Your task to perform on an android device: change keyboard looks Image 0: 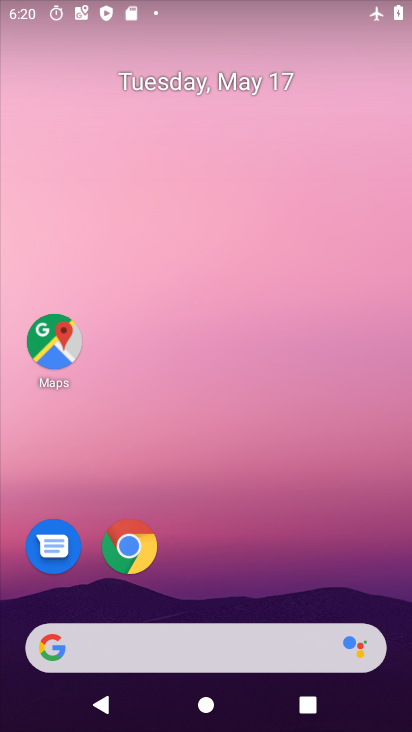
Step 0: drag from (188, 486) to (189, 216)
Your task to perform on an android device: change keyboard looks Image 1: 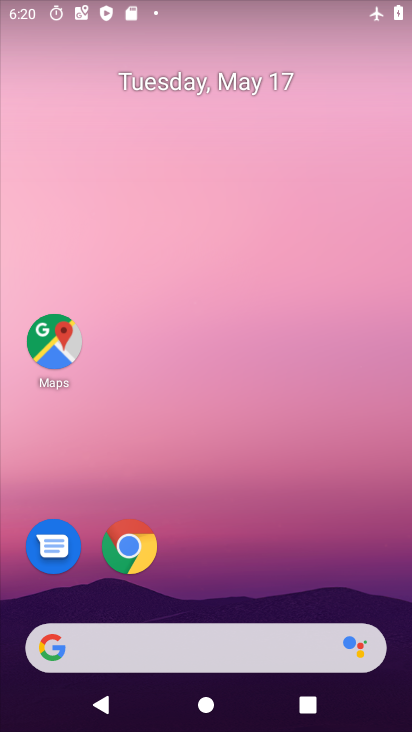
Step 1: drag from (209, 492) to (270, 106)
Your task to perform on an android device: change keyboard looks Image 2: 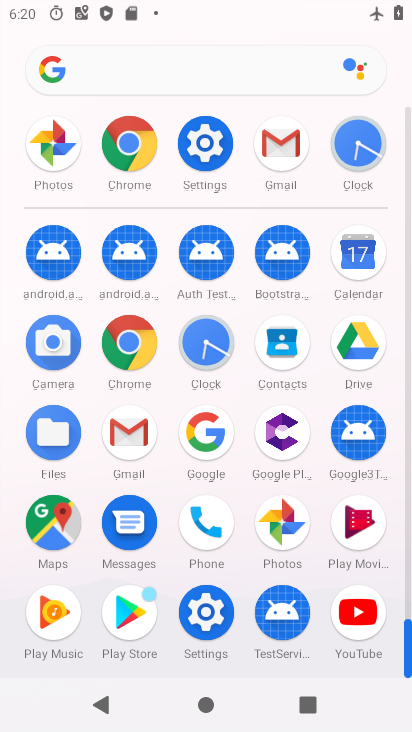
Step 2: click (214, 152)
Your task to perform on an android device: change keyboard looks Image 3: 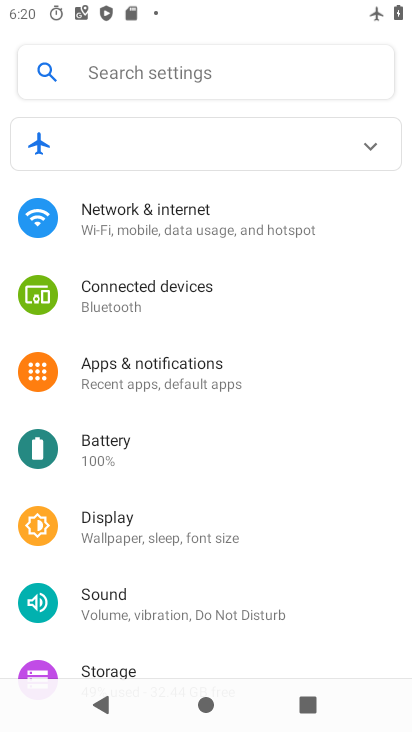
Step 3: drag from (181, 540) to (205, 158)
Your task to perform on an android device: change keyboard looks Image 4: 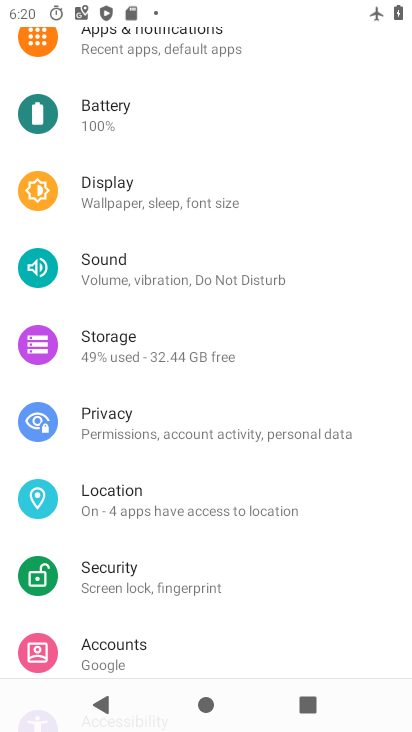
Step 4: drag from (154, 555) to (160, 297)
Your task to perform on an android device: change keyboard looks Image 5: 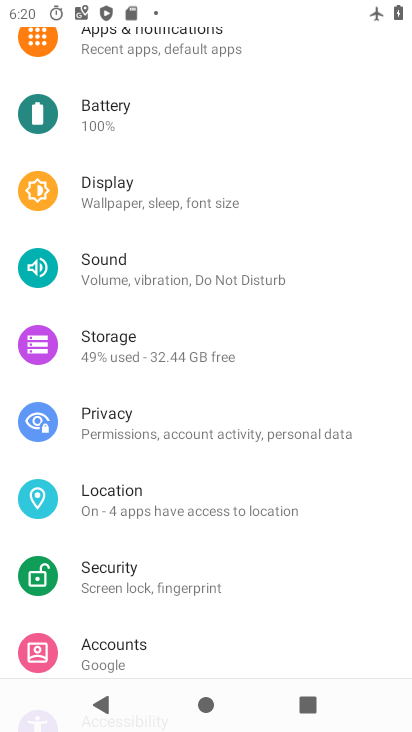
Step 5: drag from (150, 600) to (145, 376)
Your task to perform on an android device: change keyboard looks Image 6: 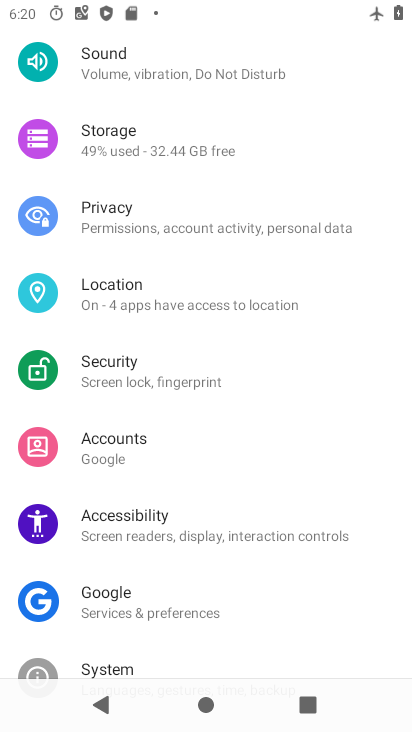
Step 6: drag from (118, 635) to (139, 326)
Your task to perform on an android device: change keyboard looks Image 7: 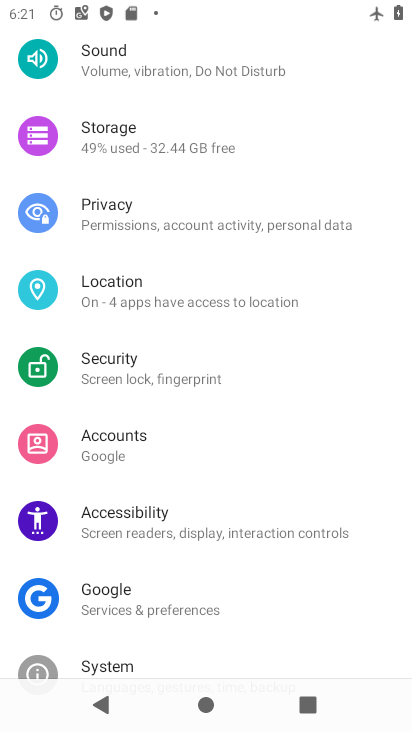
Step 7: drag from (114, 564) to (144, 372)
Your task to perform on an android device: change keyboard looks Image 8: 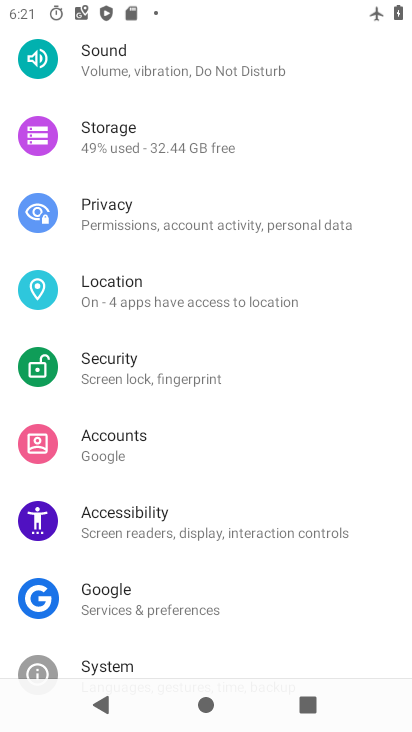
Step 8: click (100, 665)
Your task to perform on an android device: change keyboard looks Image 9: 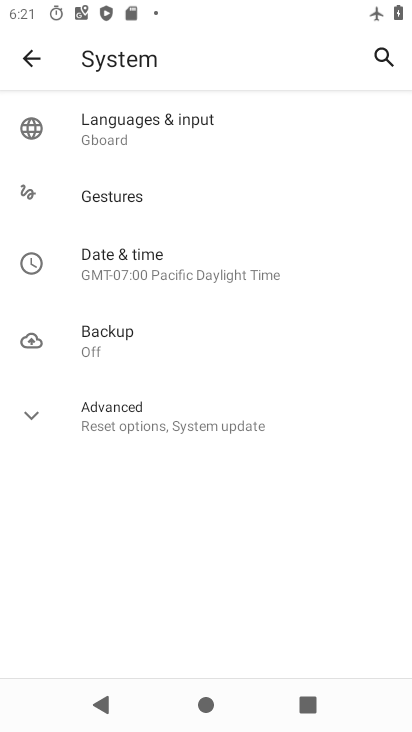
Step 9: click (113, 131)
Your task to perform on an android device: change keyboard looks Image 10: 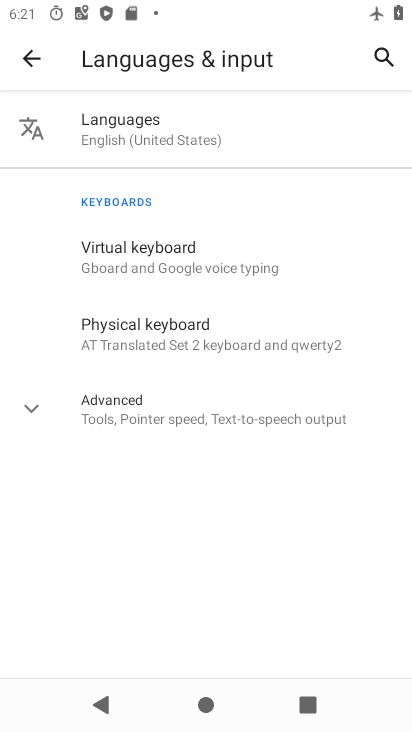
Step 10: click (128, 254)
Your task to perform on an android device: change keyboard looks Image 11: 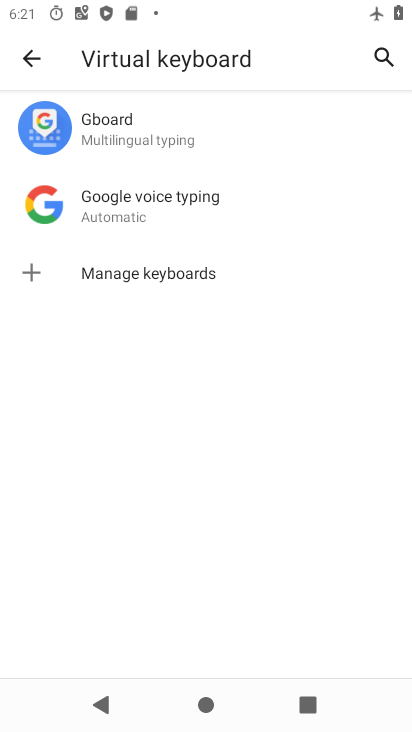
Step 11: click (111, 139)
Your task to perform on an android device: change keyboard looks Image 12: 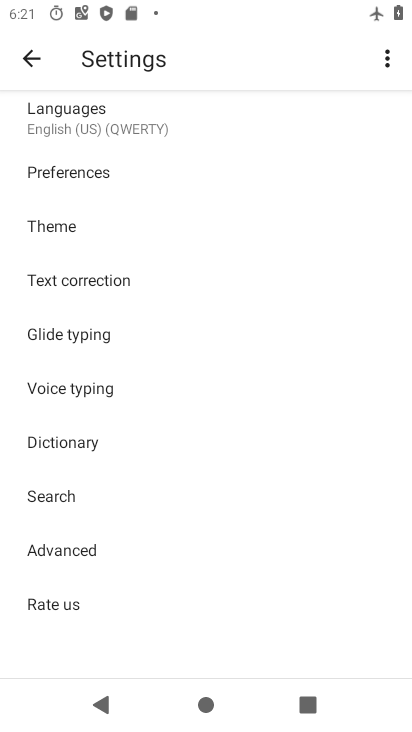
Step 12: click (53, 233)
Your task to perform on an android device: change keyboard looks Image 13: 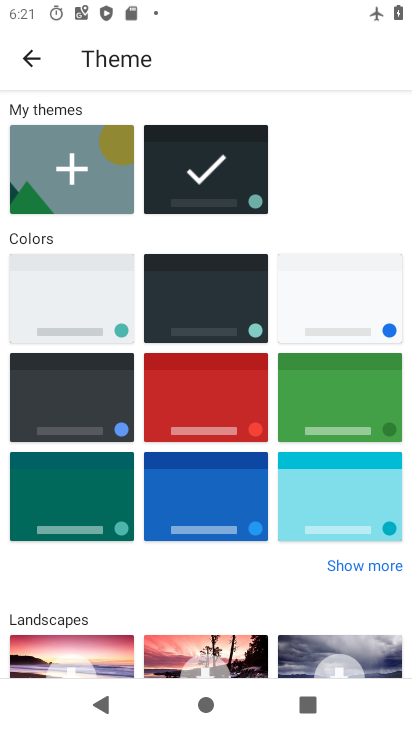
Step 13: click (184, 284)
Your task to perform on an android device: change keyboard looks Image 14: 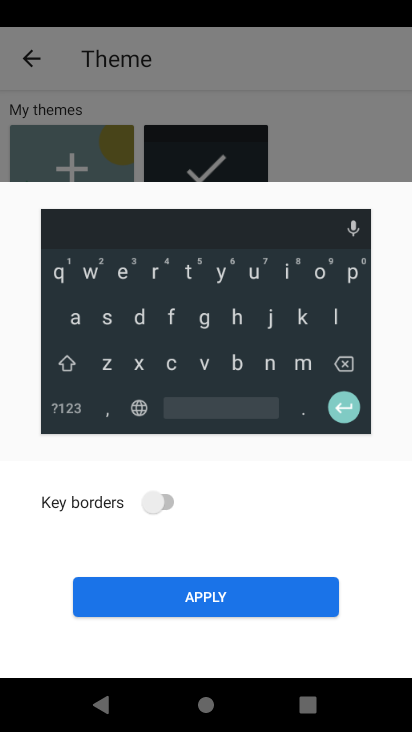
Step 14: click (199, 603)
Your task to perform on an android device: change keyboard looks Image 15: 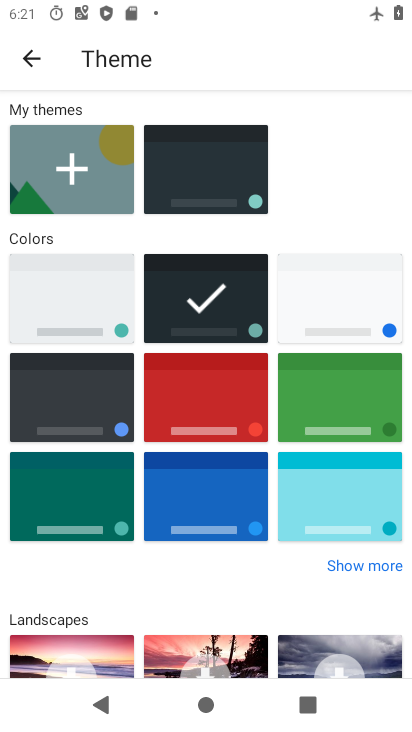
Step 15: task complete